Your task to perform on an android device: toggle data saver in the chrome app Image 0: 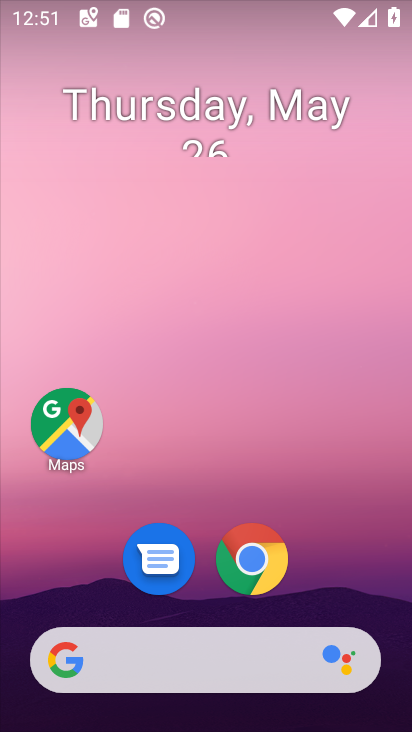
Step 0: press home button
Your task to perform on an android device: toggle data saver in the chrome app Image 1: 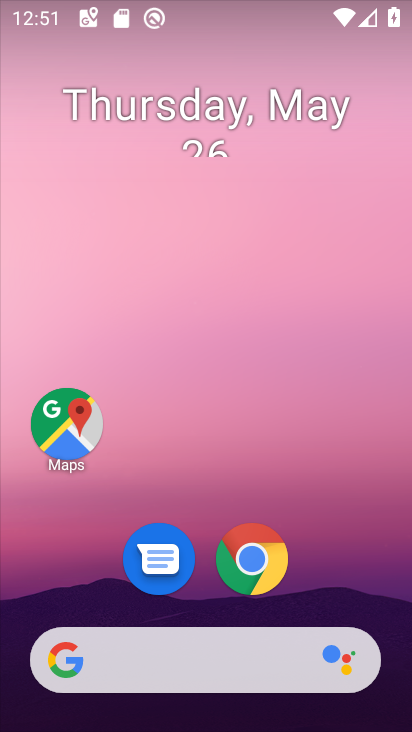
Step 1: click (257, 566)
Your task to perform on an android device: toggle data saver in the chrome app Image 2: 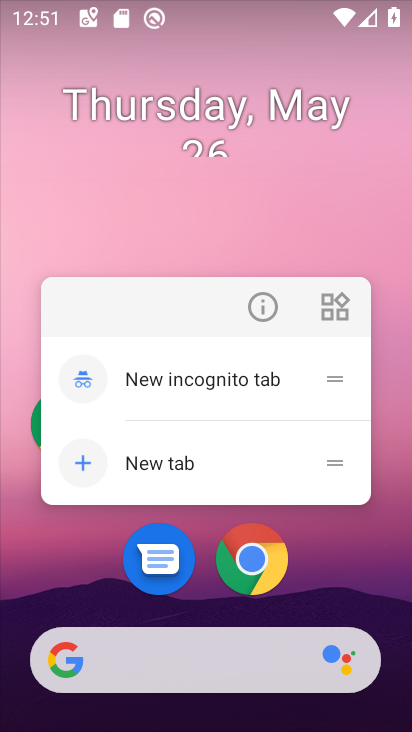
Step 2: click (257, 566)
Your task to perform on an android device: toggle data saver in the chrome app Image 3: 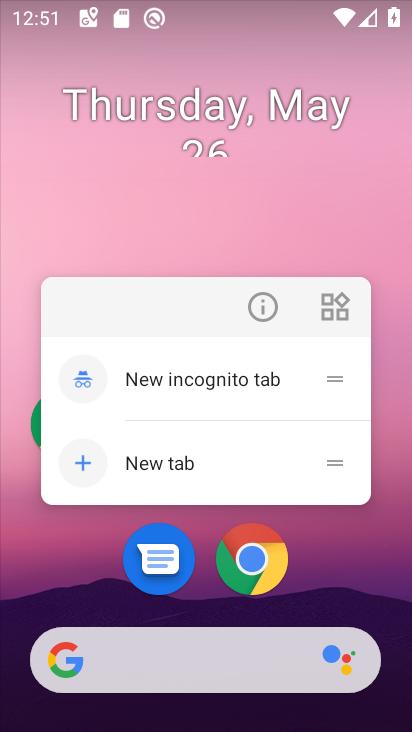
Step 3: click (242, 573)
Your task to perform on an android device: toggle data saver in the chrome app Image 4: 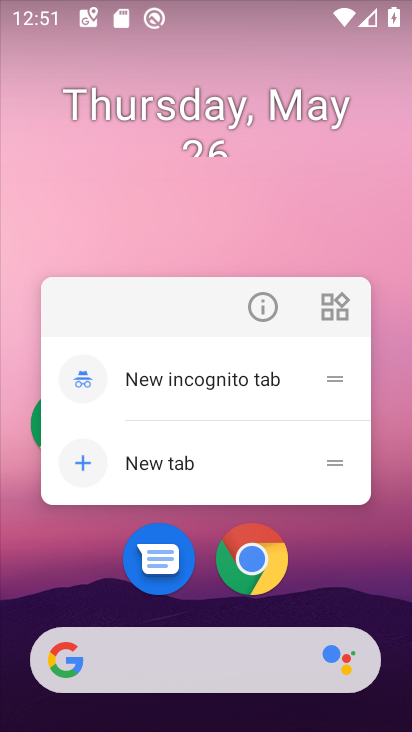
Step 4: click (325, 559)
Your task to perform on an android device: toggle data saver in the chrome app Image 5: 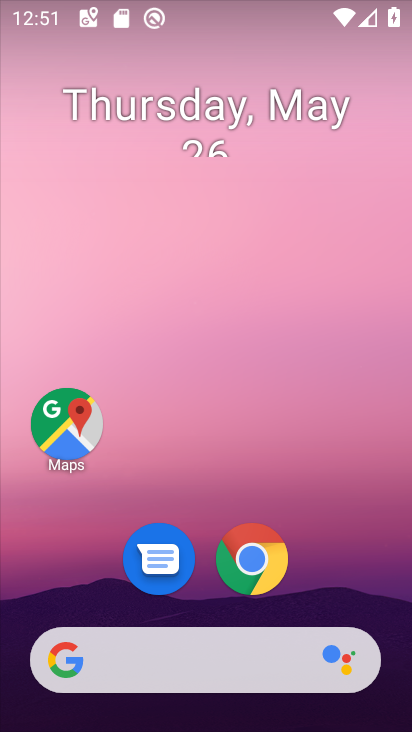
Step 5: click (262, 572)
Your task to perform on an android device: toggle data saver in the chrome app Image 6: 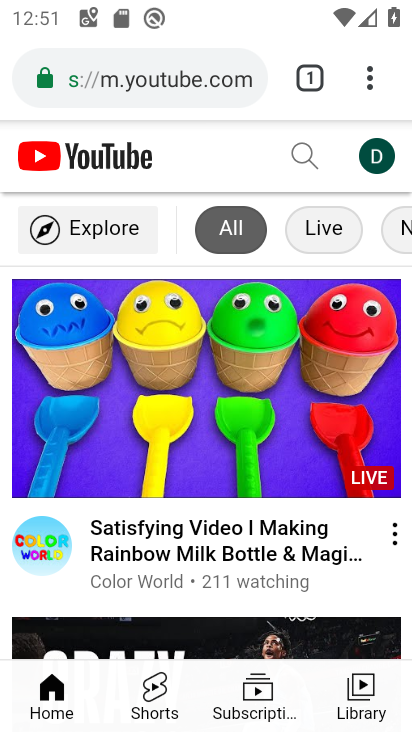
Step 6: drag from (367, 81) to (128, 612)
Your task to perform on an android device: toggle data saver in the chrome app Image 7: 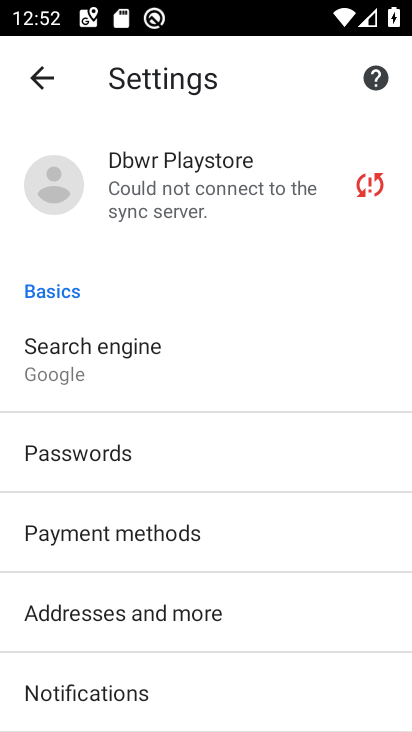
Step 7: drag from (288, 696) to (287, 149)
Your task to perform on an android device: toggle data saver in the chrome app Image 8: 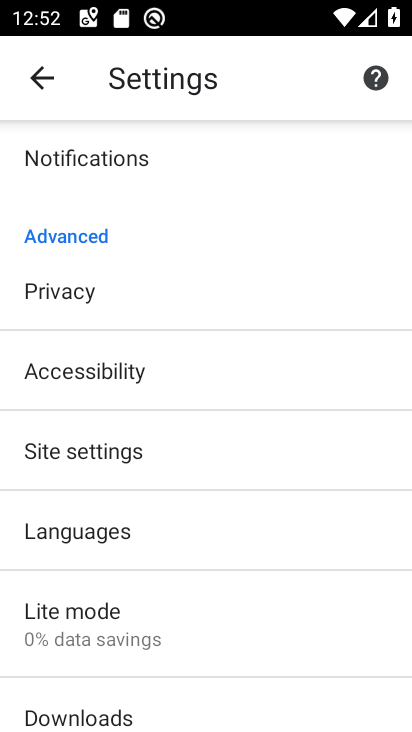
Step 8: click (57, 638)
Your task to perform on an android device: toggle data saver in the chrome app Image 9: 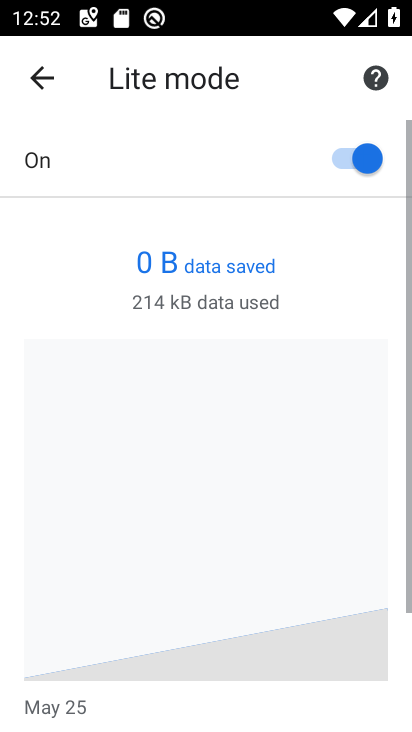
Step 9: click (360, 164)
Your task to perform on an android device: toggle data saver in the chrome app Image 10: 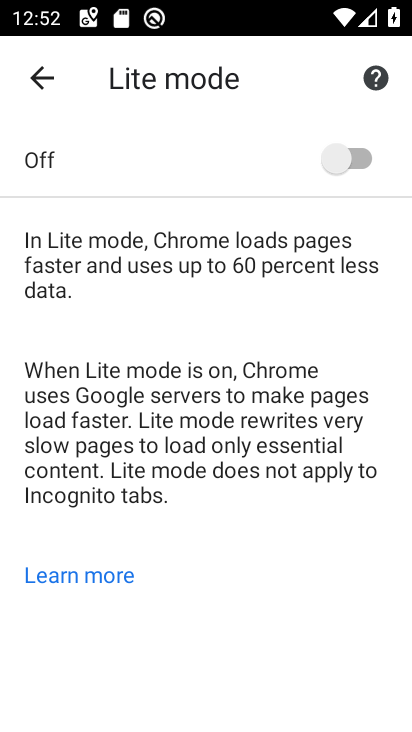
Step 10: task complete